Your task to perform on an android device: turn smart compose on in the gmail app Image 0: 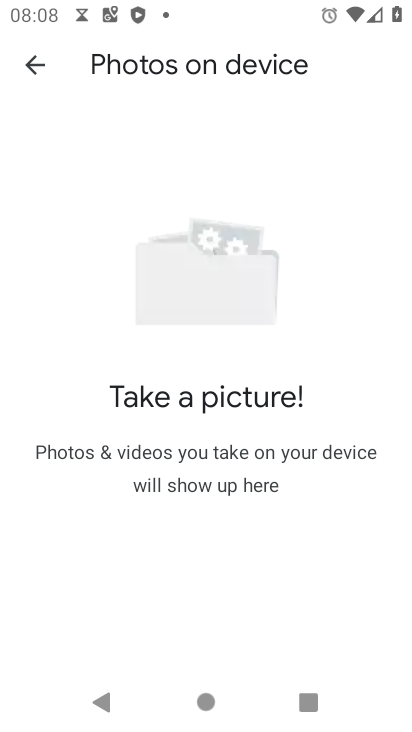
Step 0: press home button
Your task to perform on an android device: turn smart compose on in the gmail app Image 1: 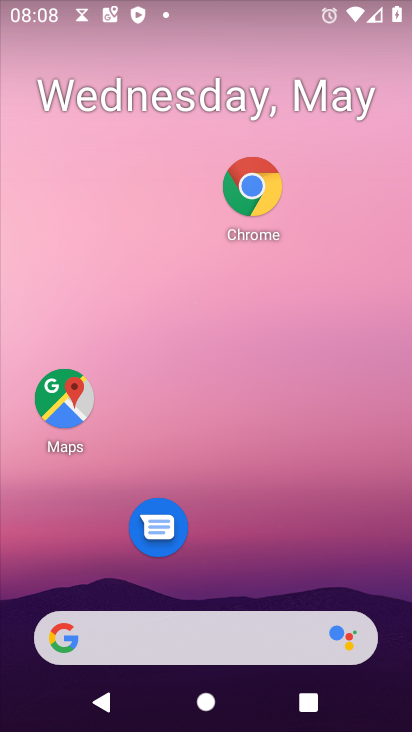
Step 1: drag from (295, 550) to (325, 39)
Your task to perform on an android device: turn smart compose on in the gmail app Image 2: 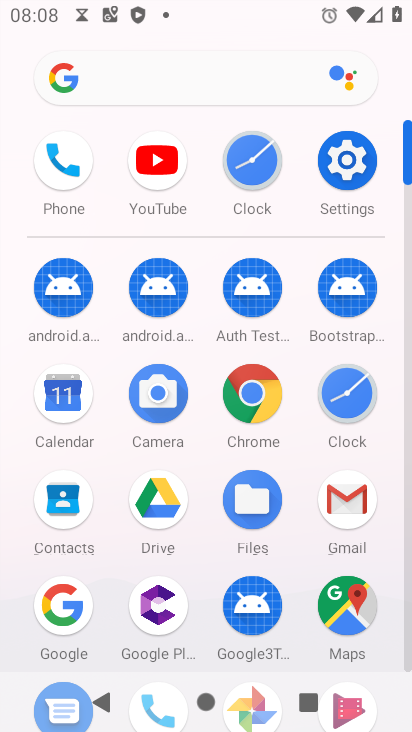
Step 2: click (343, 494)
Your task to perform on an android device: turn smart compose on in the gmail app Image 3: 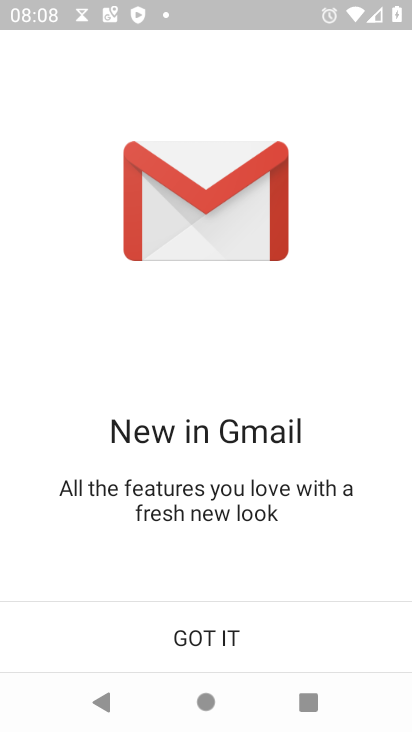
Step 3: click (201, 638)
Your task to perform on an android device: turn smart compose on in the gmail app Image 4: 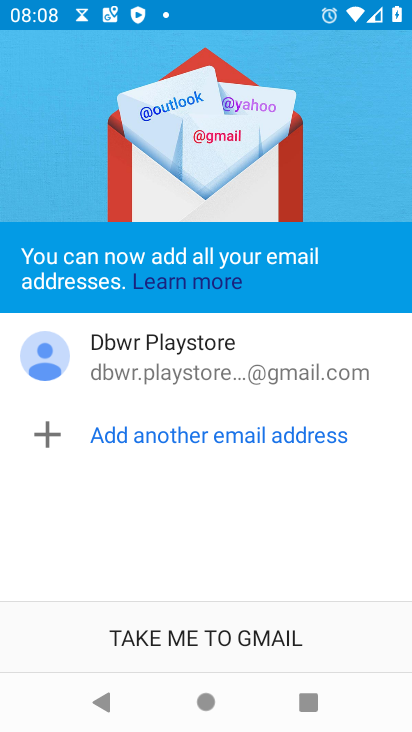
Step 4: click (236, 631)
Your task to perform on an android device: turn smart compose on in the gmail app Image 5: 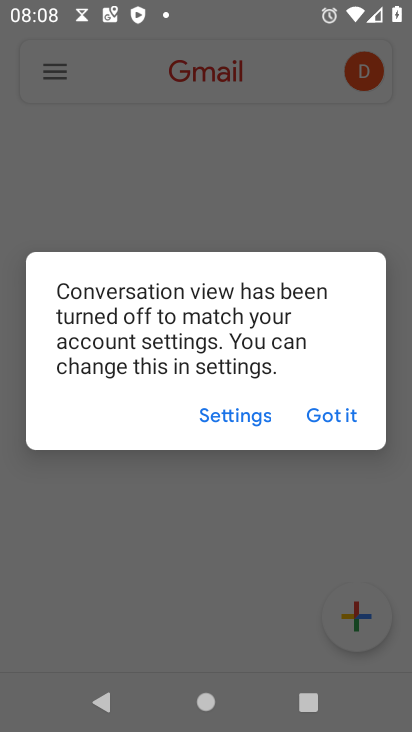
Step 5: click (341, 420)
Your task to perform on an android device: turn smart compose on in the gmail app Image 6: 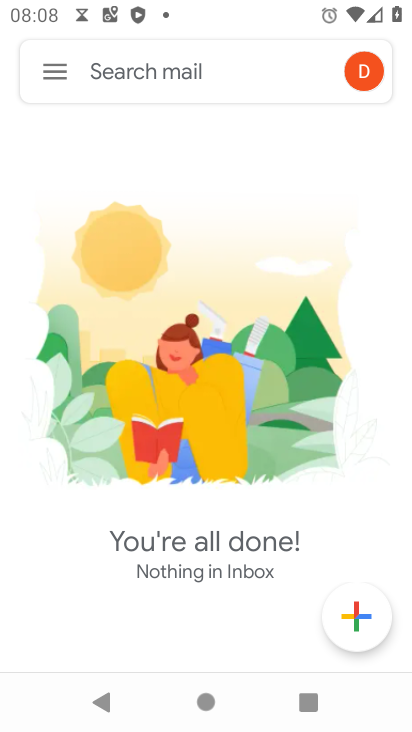
Step 6: click (53, 70)
Your task to perform on an android device: turn smart compose on in the gmail app Image 7: 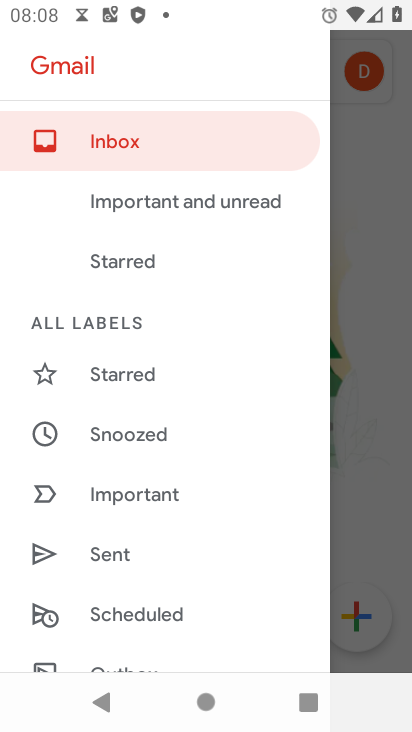
Step 7: drag from (217, 594) to (238, 240)
Your task to perform on an android device: turn smart compose on in the gmail app Image 8: 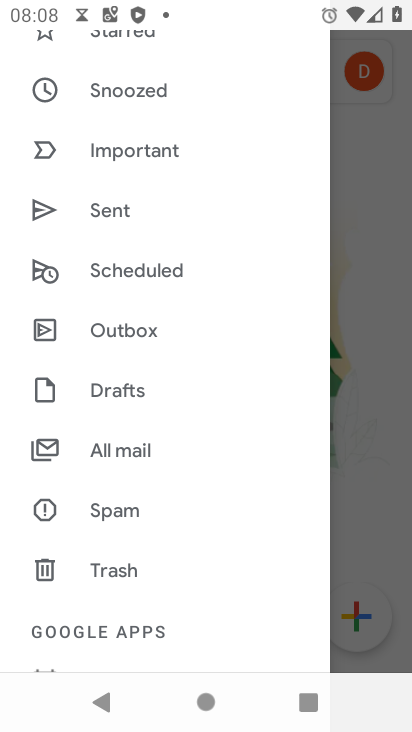
Step 8: drag from (212, 588) to (226, 222)
Your task to perform on an android device: turn smart compose on in the gmail app Image 9: 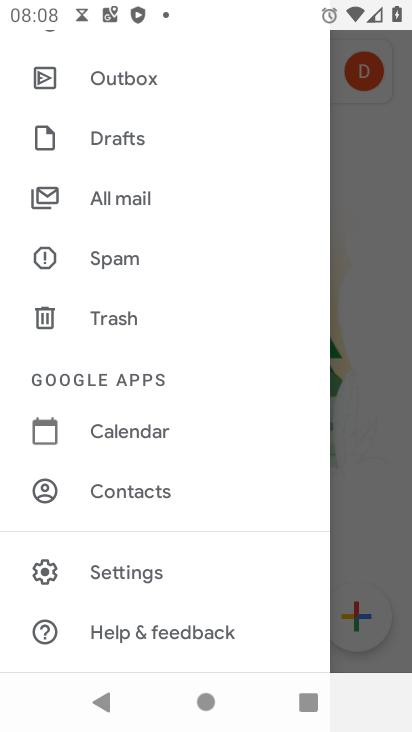
Step 9: click (116, 568)
Your task to perform on an android device: turn smart compose on in the gmail app Image 10: 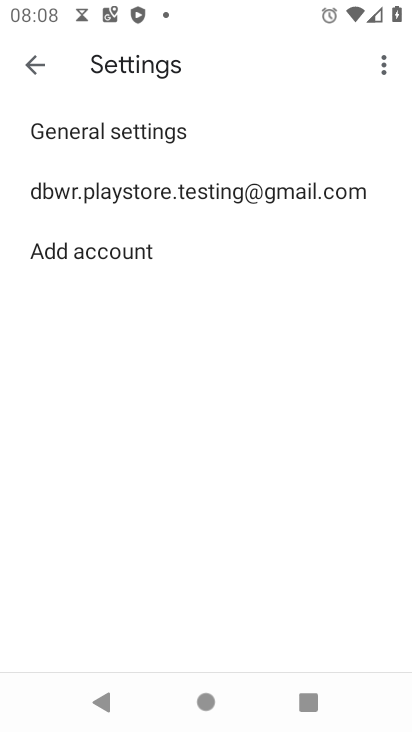
Step 10: click (246, 192)
Your task to perform on an android device: turn smart compose on in the gmail app Image 11: 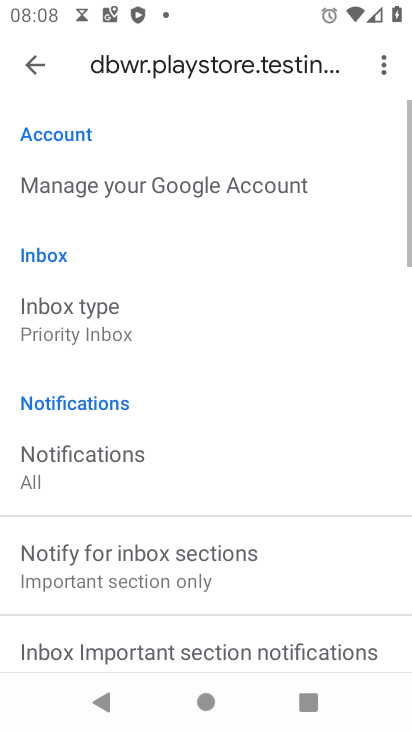
Step 11: task complete